Your task to perform on an android device: Add panasonic triple a to the cart on amazon.com Image 0: 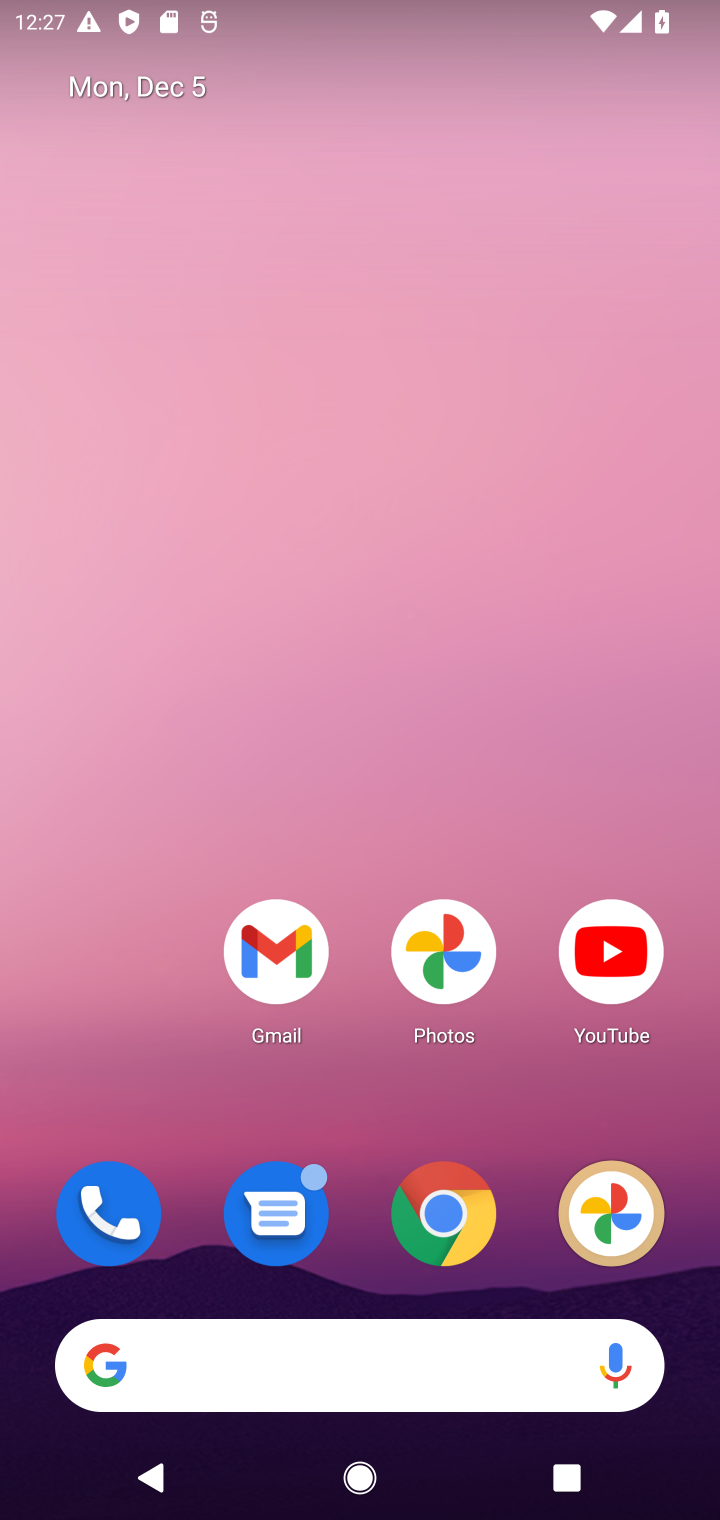
Step 0: click (449, 1221)
Your task to perform on an android device: Add panasonic triple a to the cart on amazon.com Image 1: 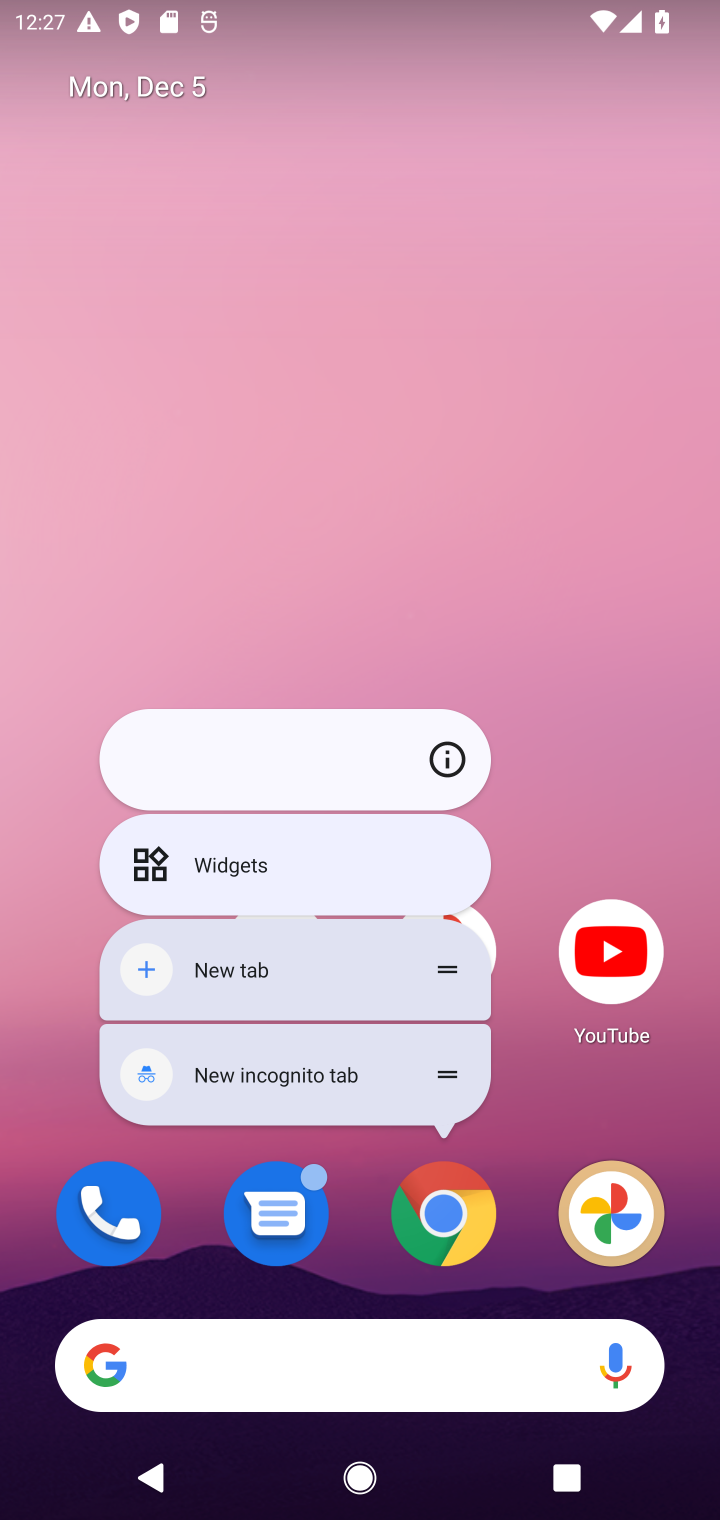
Step 1: click (449, 1221)
Your task to perform on an android device: Add panasonic triple a to the cart on amazon.com Image 2: 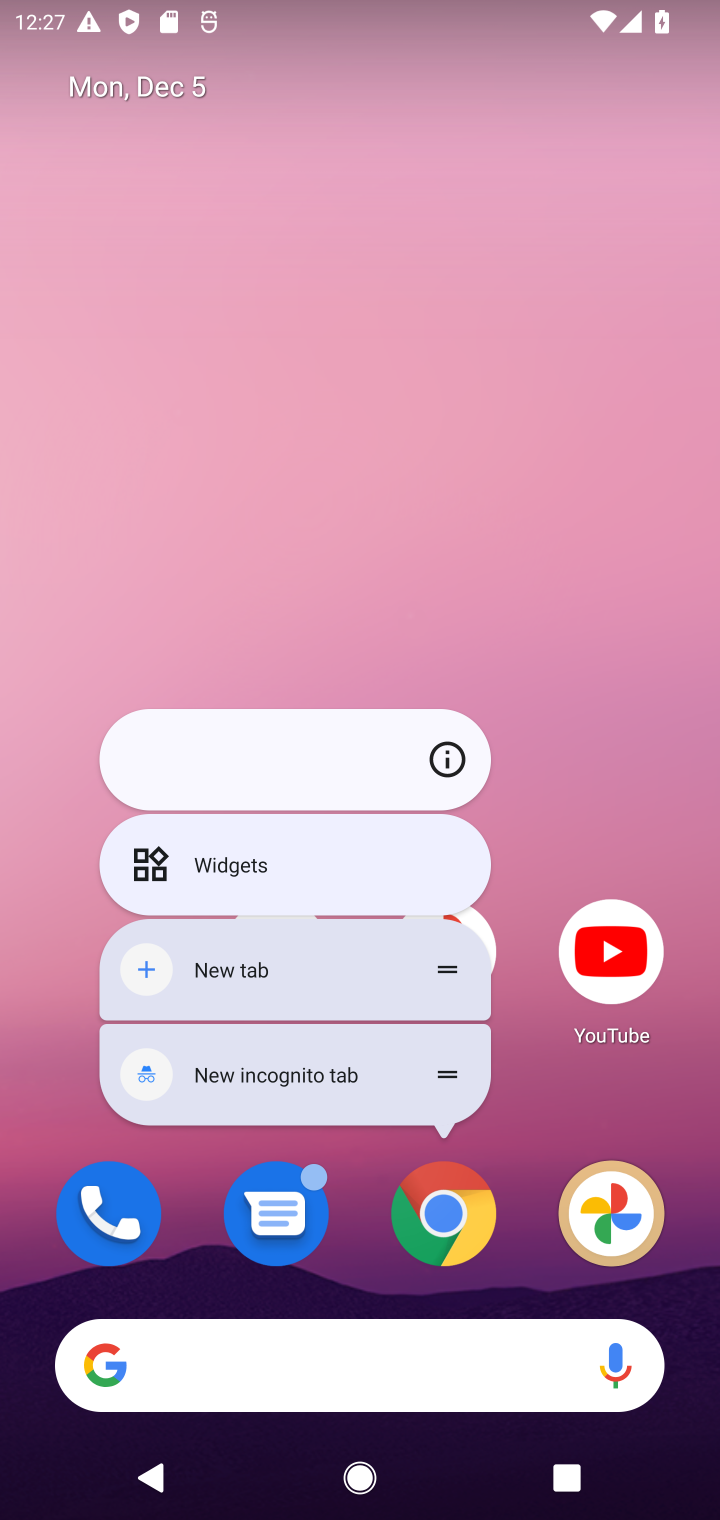
Step 2: click (449, 1225)
Your task to perform on an android device: Add panasonic triple a to the cart on amazon.com Image 3: 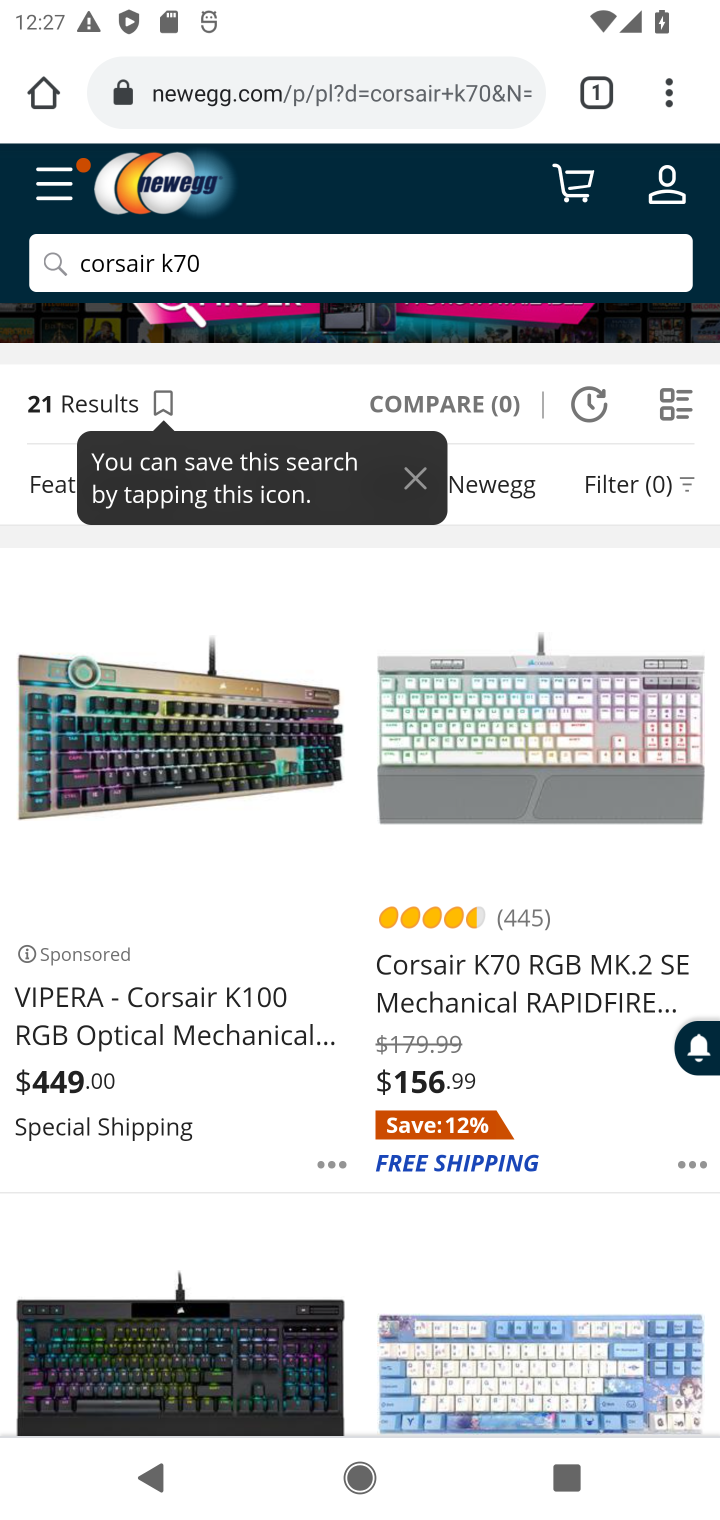
Step 3: click (333, 100)
Your task to perform on an android device: Add panasonic triple a to the cart on amazon.com Image 4: 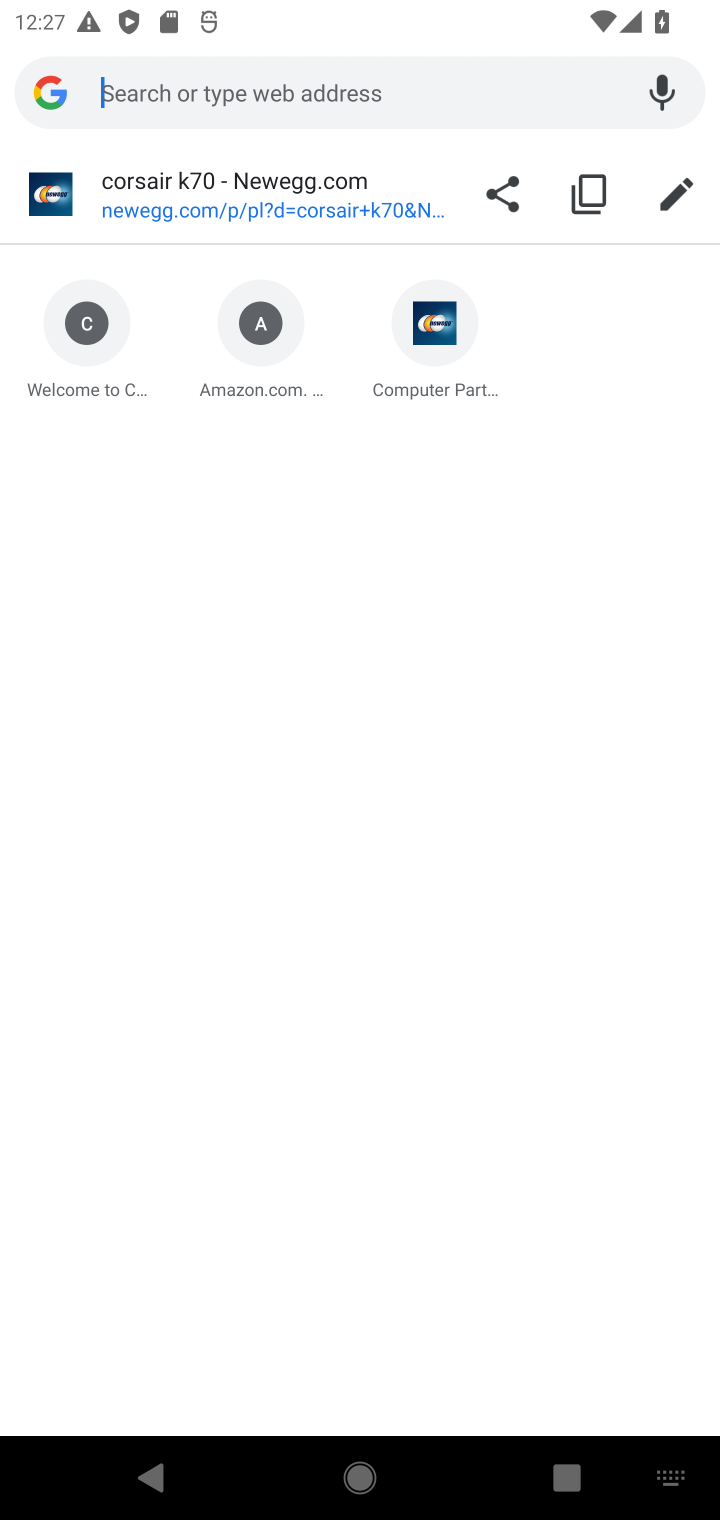
Step 4: click (249, 321)
Your task to perform on an android device: Add panasonic triple a to the cart on amazon.com Image 5: 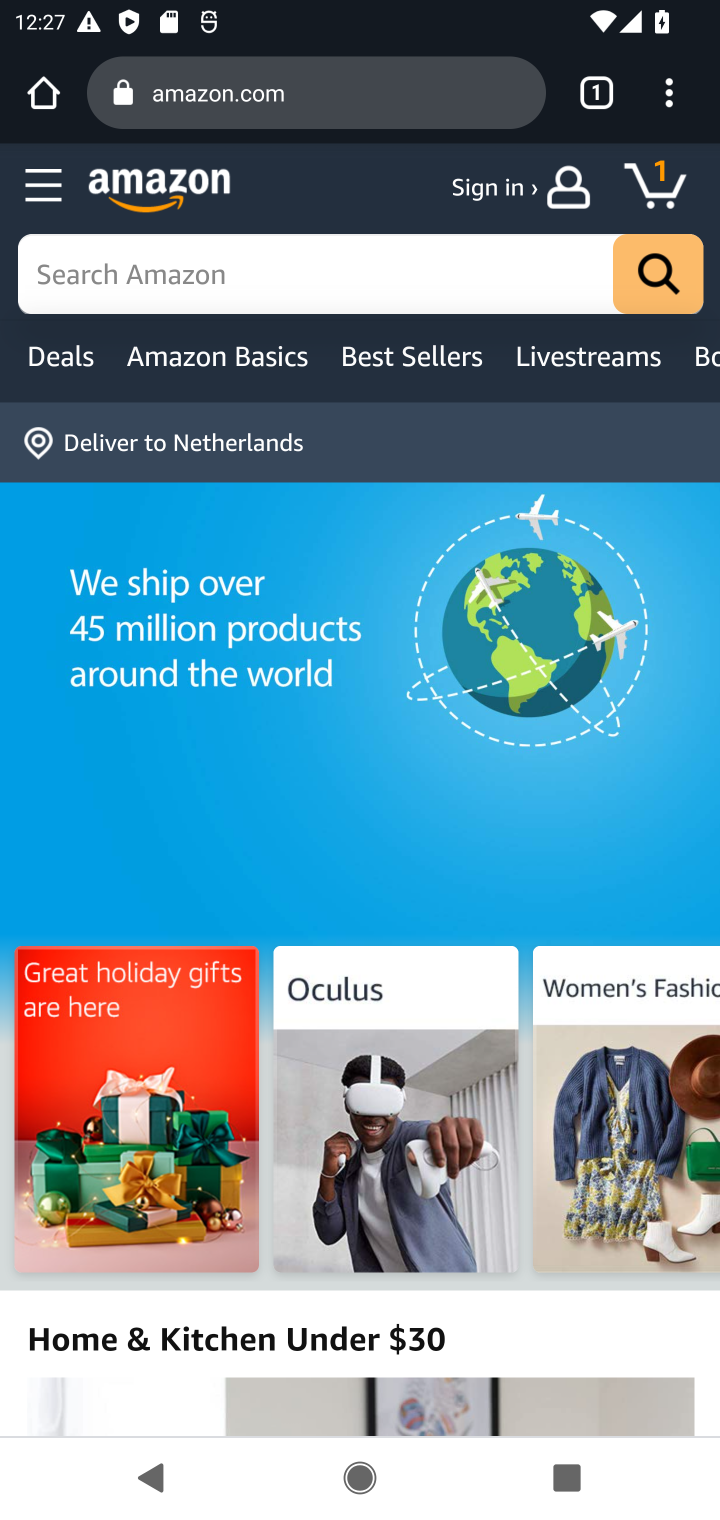
Step 5: click (169, 264)
Your task to perform on an android device: Add panasonic triple a to the cart on amazon.com Image 6: 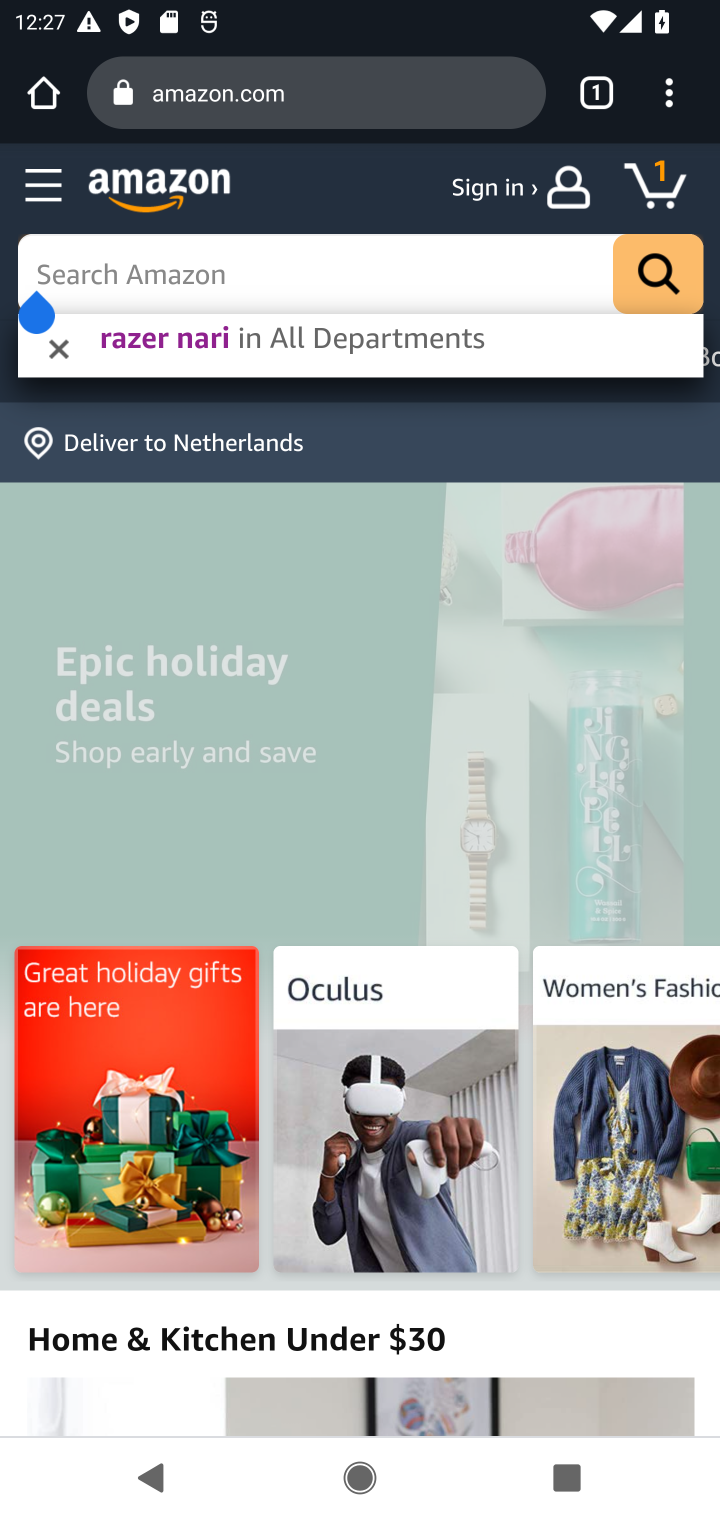
Step 6: type "panasonic triple a"
Your task to perform on an android device: Add panasonic triple a to the cart on amazon.com Image 7: 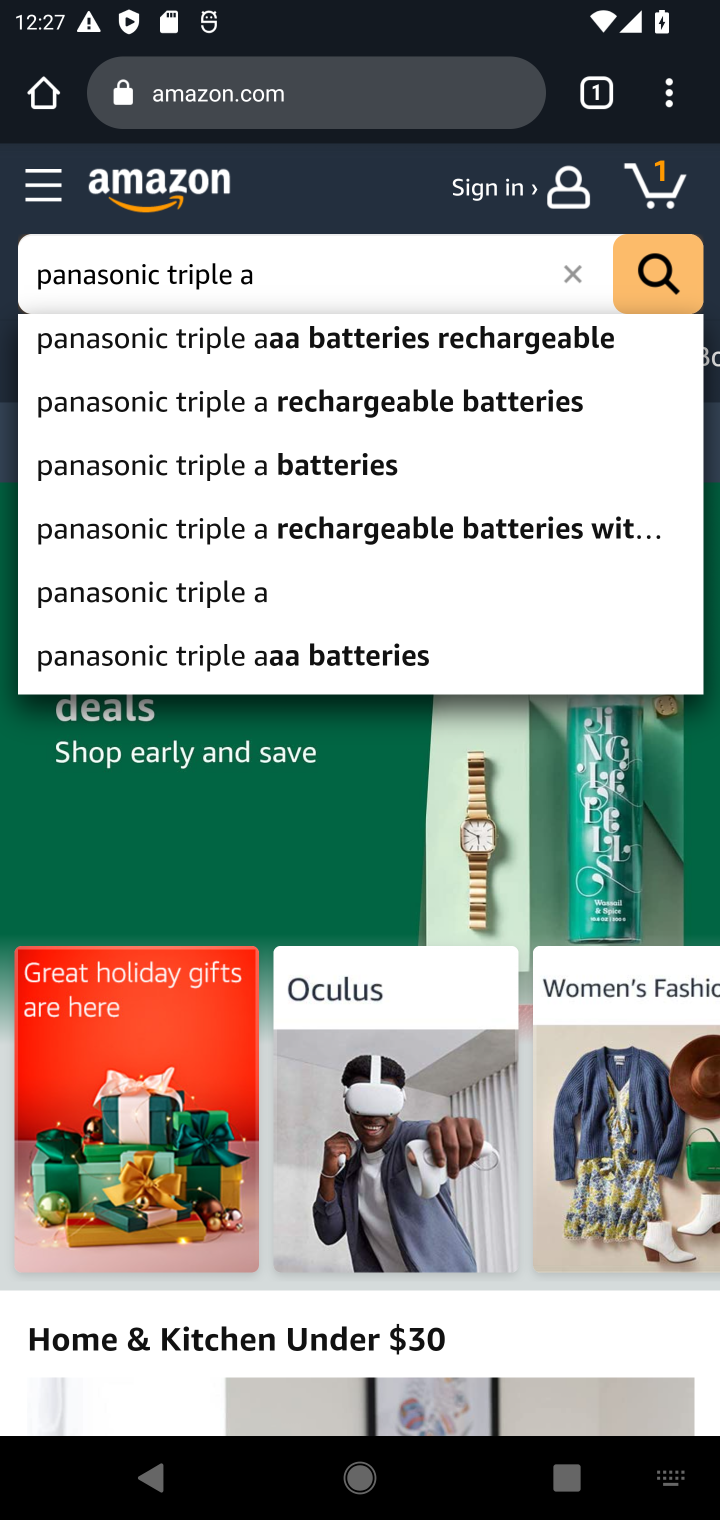
Step 7: click (233, 464)
Your task to perform on an android device: Add panasonic triple a to the cart on amazon.com Image 8: 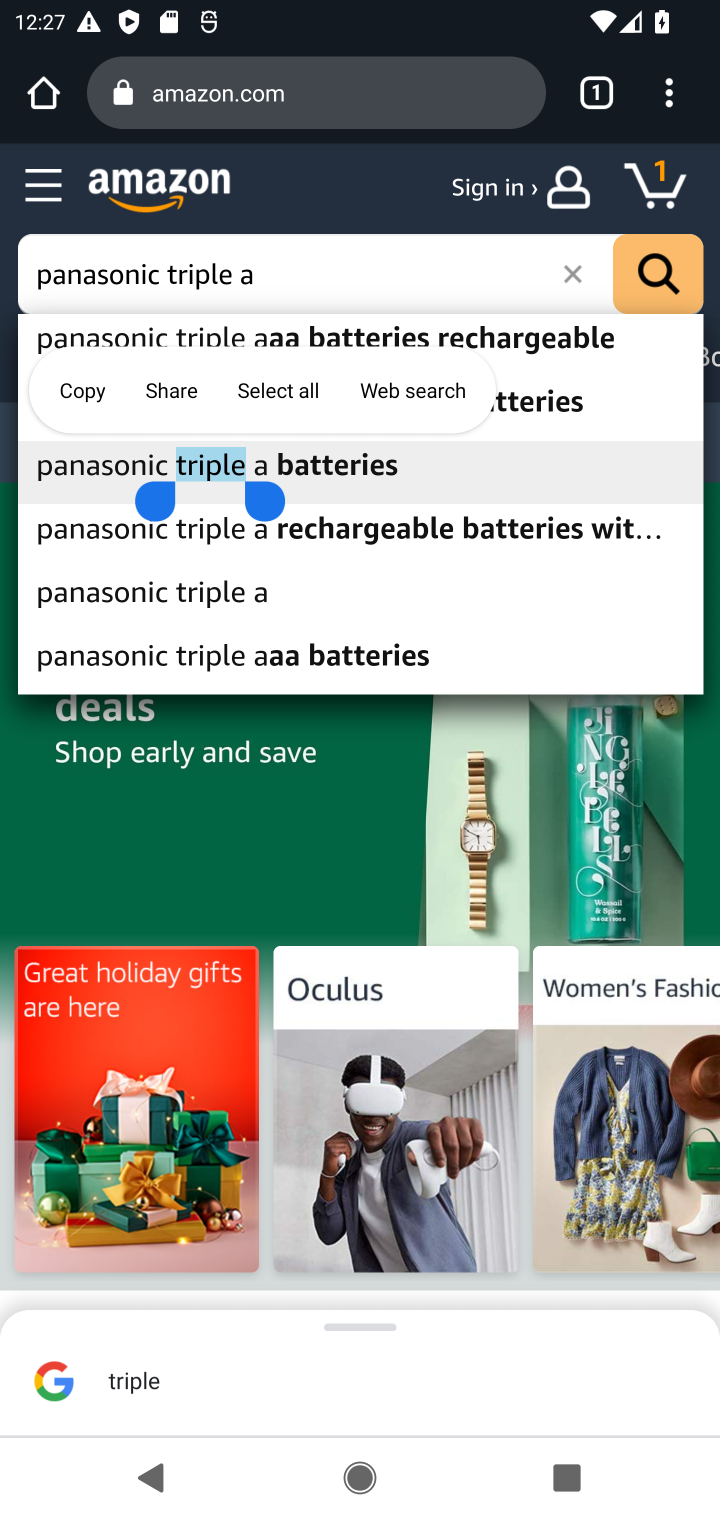
Step 8: click (310, 470)
Your task to perform on an android device: Add panasonic triple a to the cart on amazon.com Image 9: 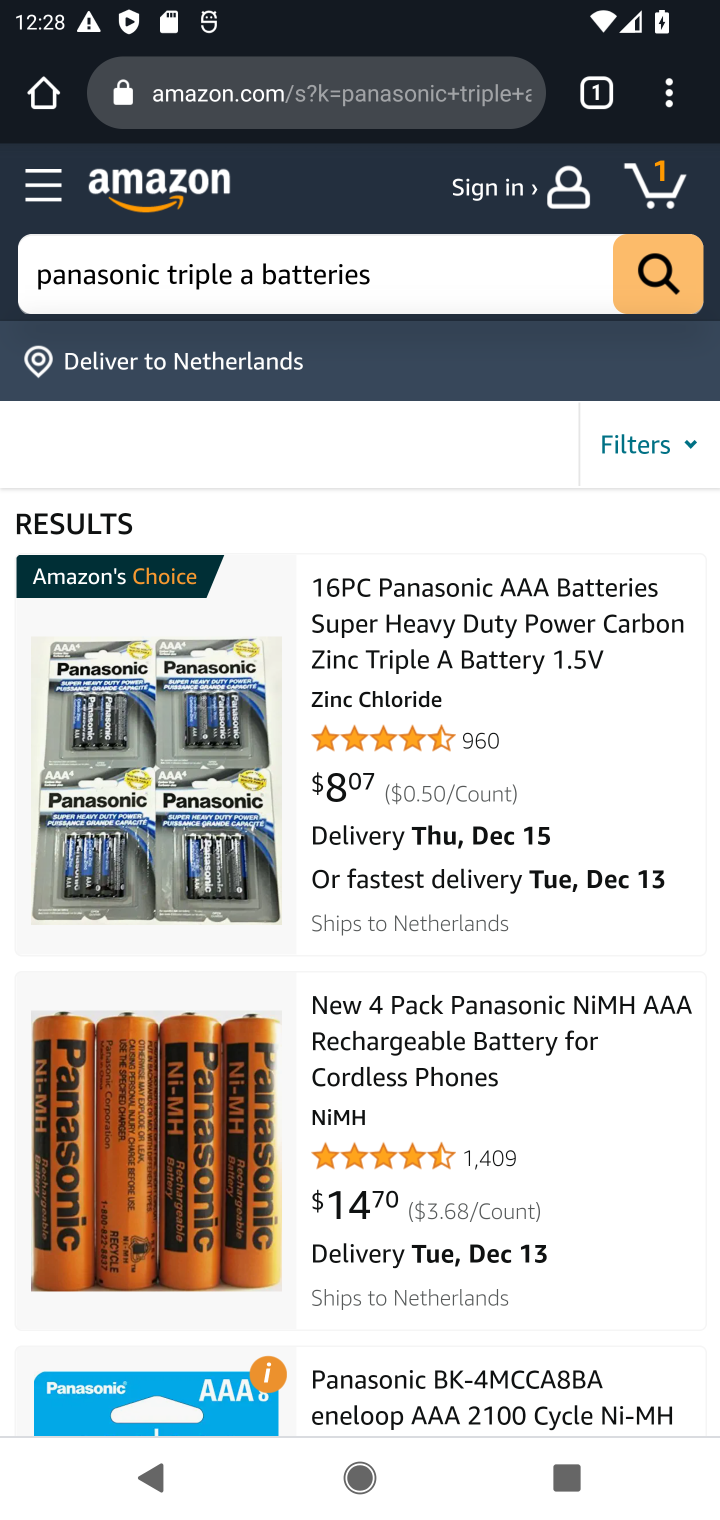
Step 9: click (421, 648)
Your task to perform on an android device: Add panasonic triple a to the cart on amazon.com Image 10: 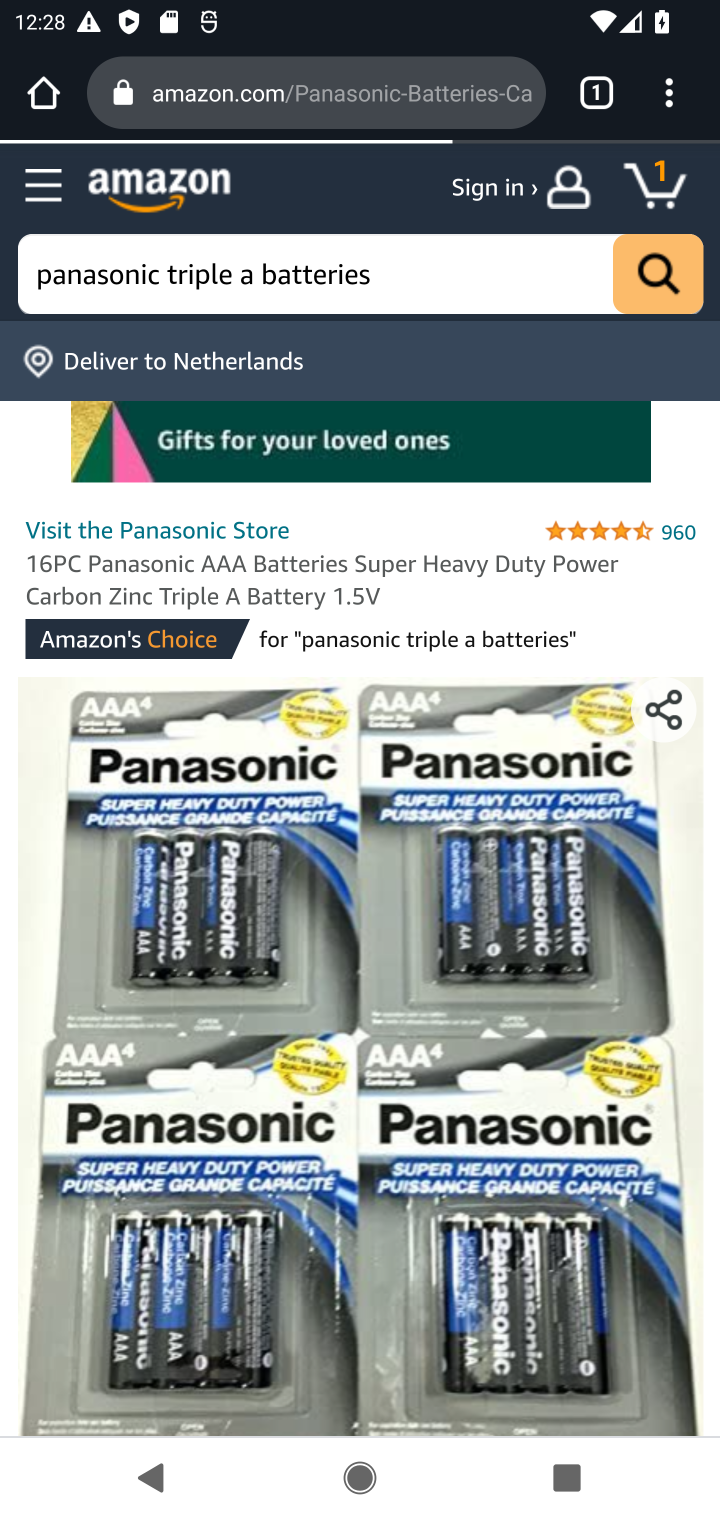
Step 10: drag from (296, 936) to (308, 566)
Your task to perform on an android device: Add panasonic triple a to the cart on amazon.com Image 11: 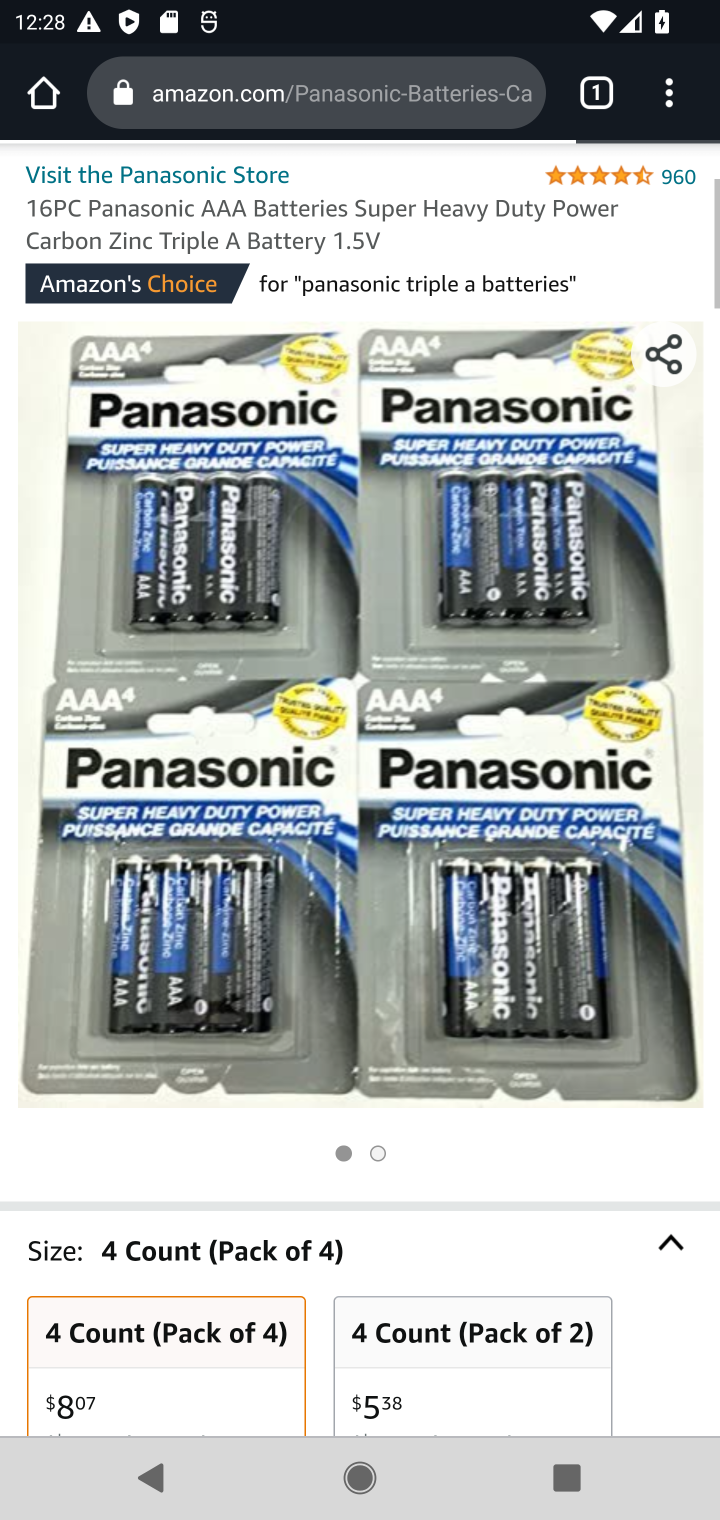
Step 11: drag from (290, 1012) to (276, 471)
Your task to perform on an android device: Add panasonic triple a to the cart on amazon.com Image 12: 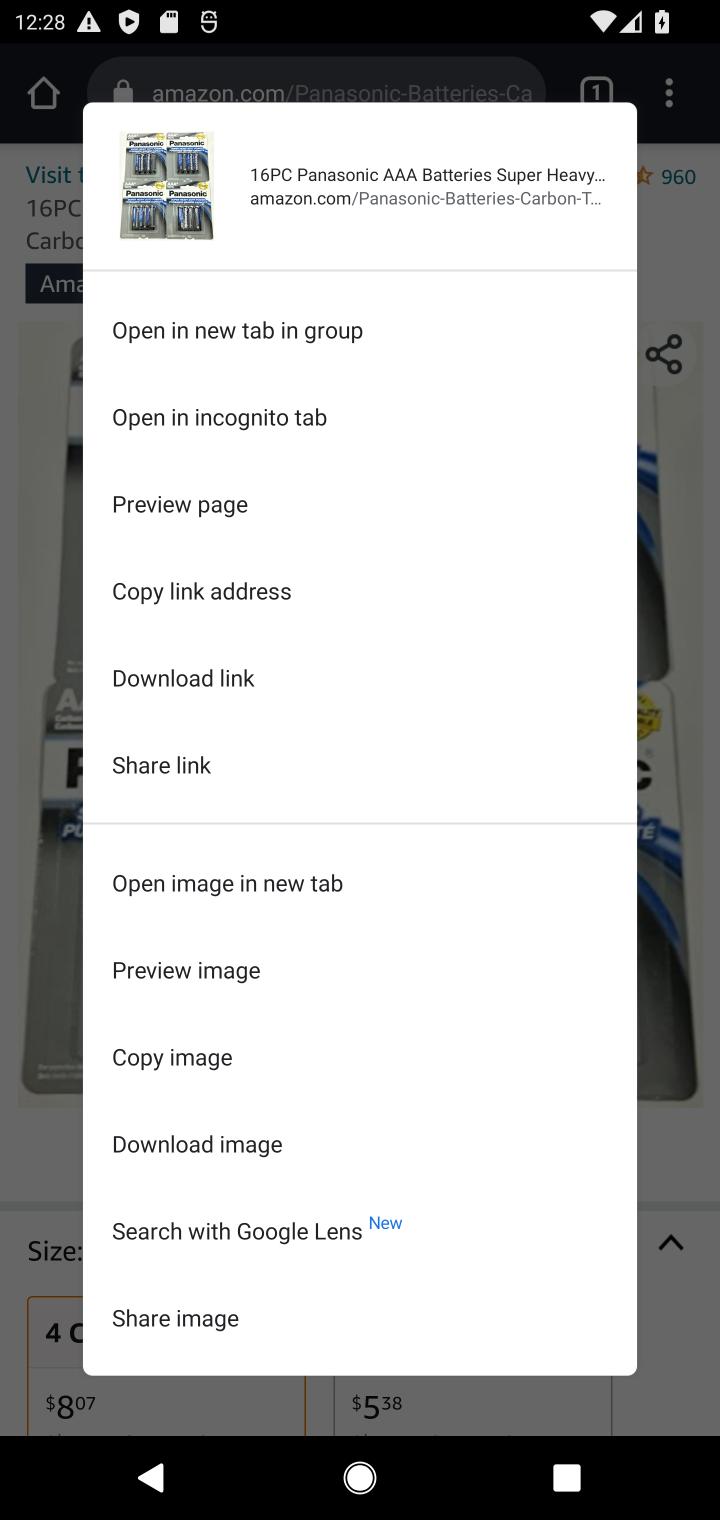
Step 12: click (60, 628)
Your task to perform on an android device: Add panasonic triple a to the cart on amazon.com Image 13: 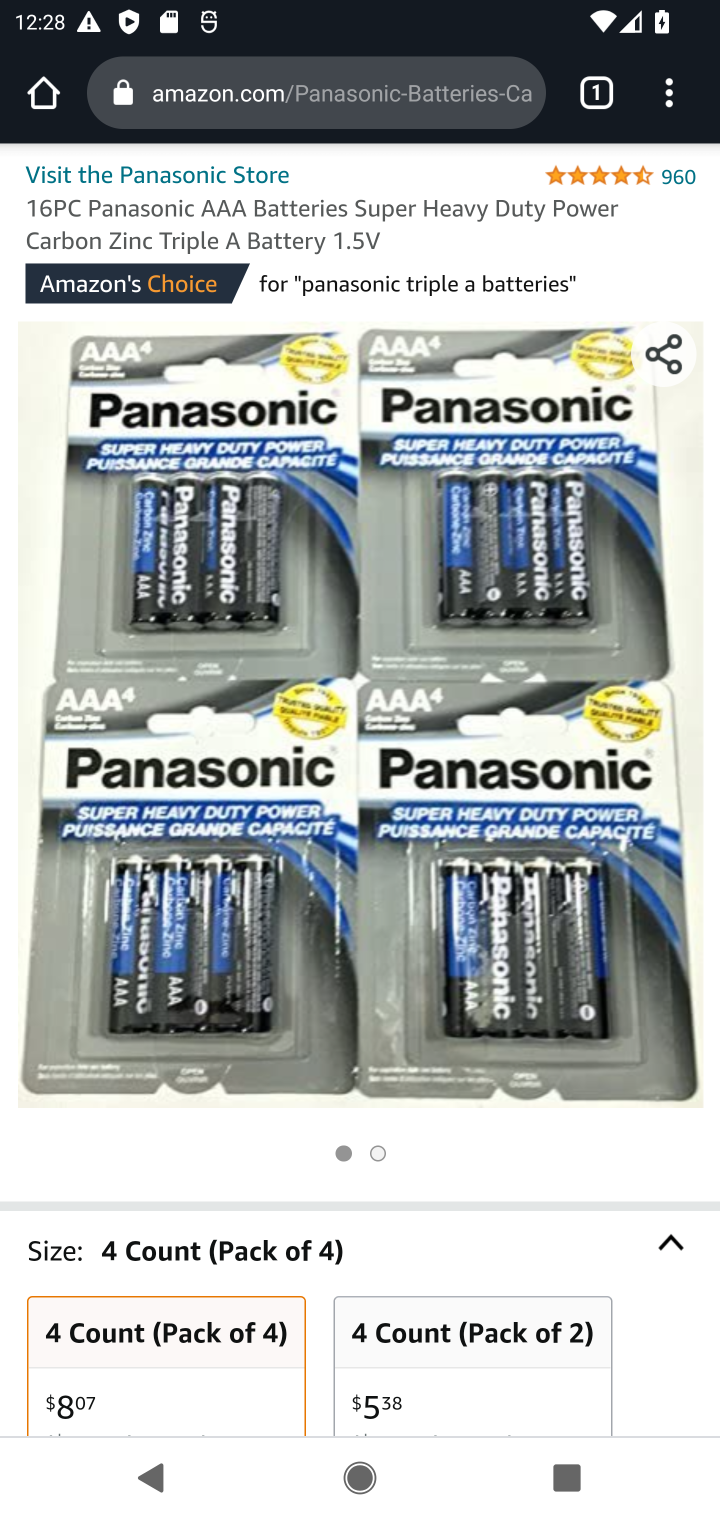
Step 13: drag from (105, 775) to (133, 390)
Your task to perform on an android device: Add panasonic triple a to the cart on amazon.com Image 14: 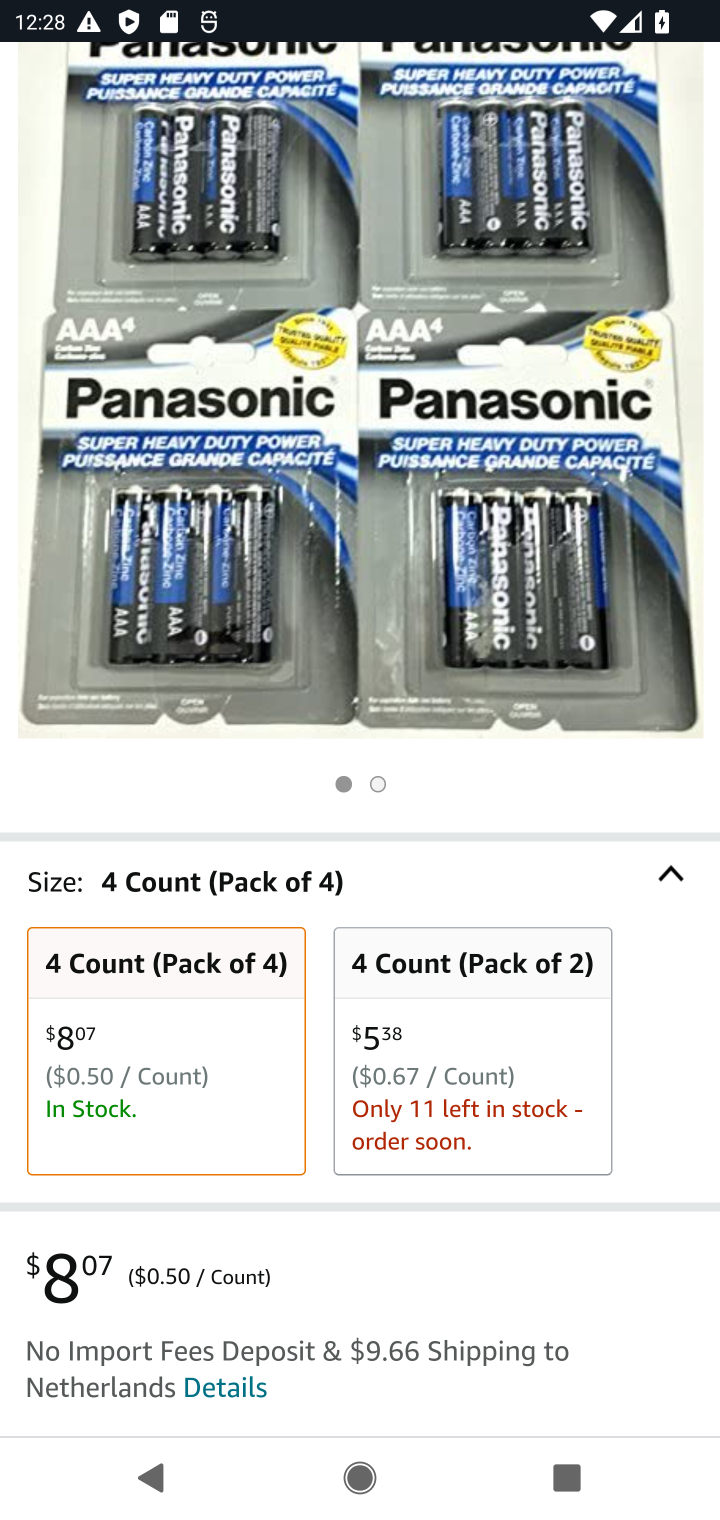
Step 14: drag from (474, 1085) to (414, 385)
Your task to perform on an android device: Add panasonic triple a to the cart on amazon.com Image 15: 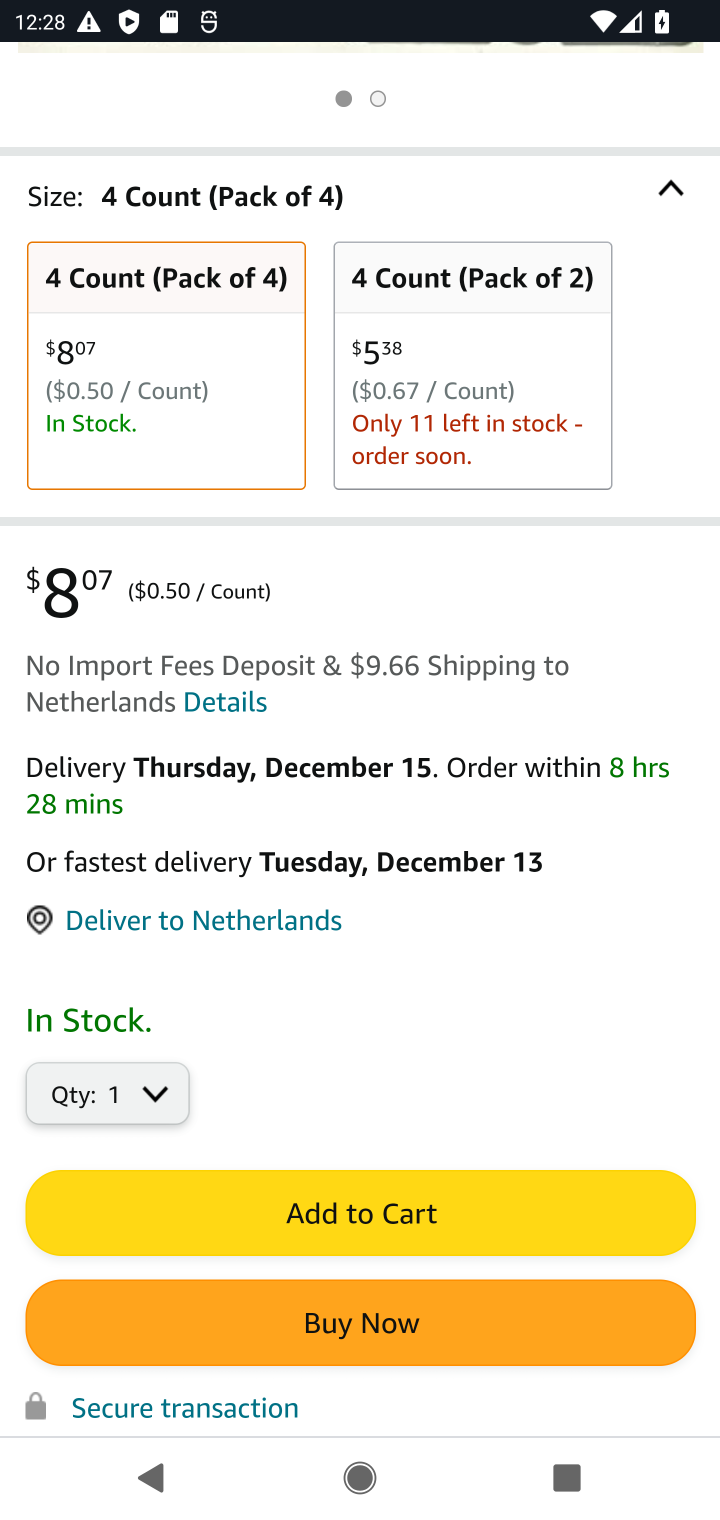
Step 15: click (341, 1204)
Your task to perform on an android device: Add panasonic triple a to the cart on amazon.com Image 16: 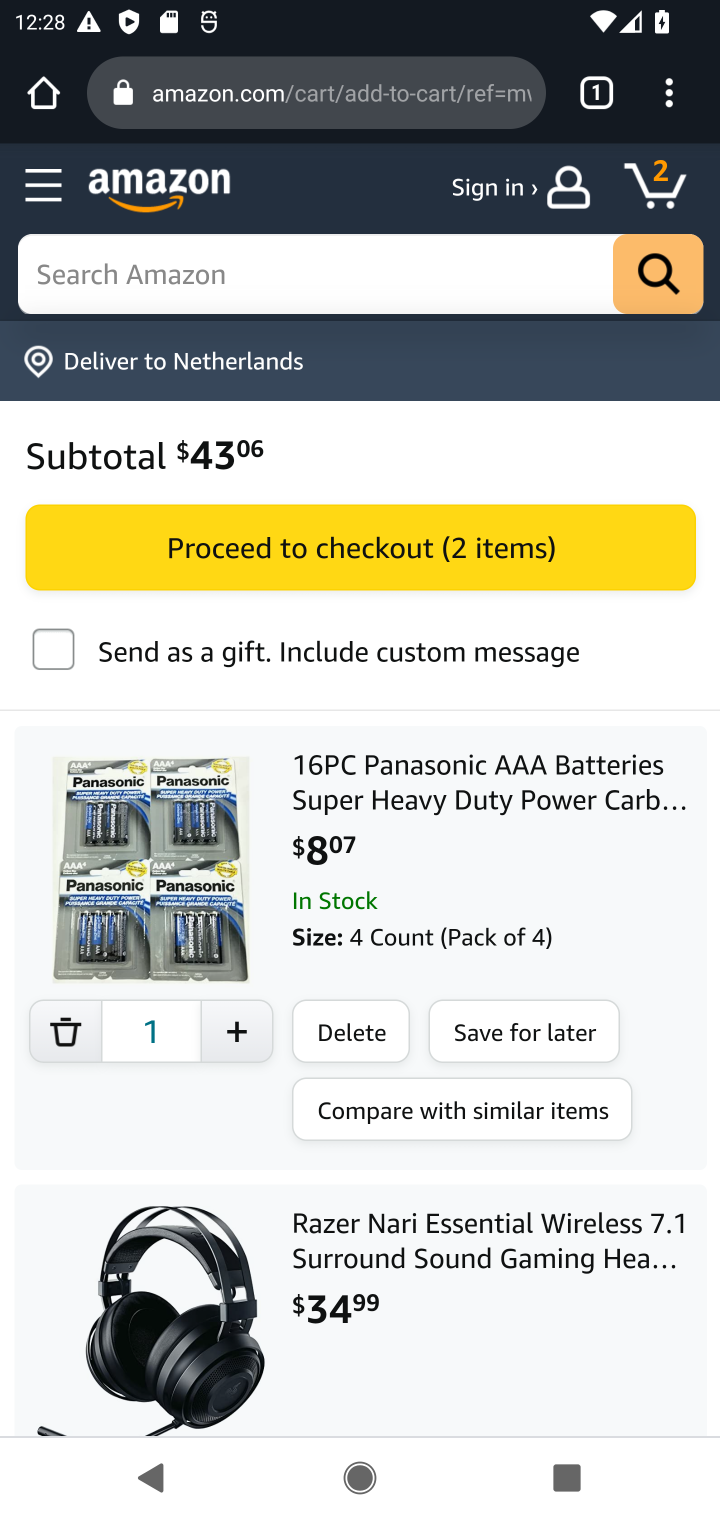
Step 16: task complete